Your task to perform on an android device: turn on the 24-hour format for clock Image 0: 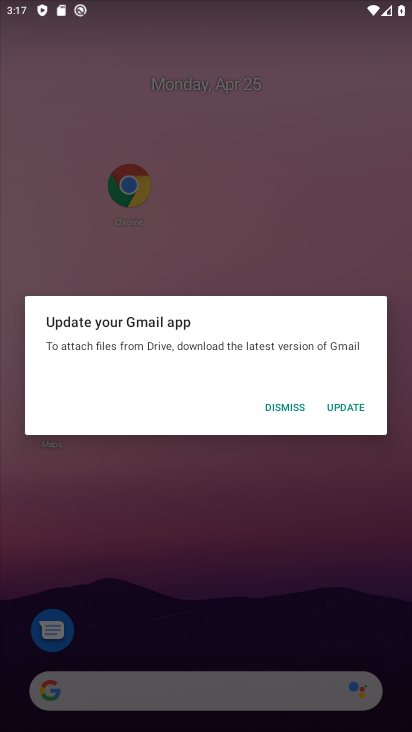
Step 0: press home button
Your task to perform on an android device: turn on the 24-hour format for clock Image 1: 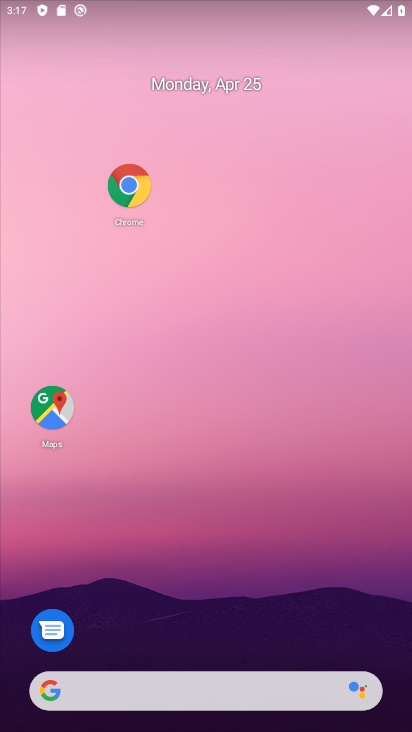
Step 1: drag from (140, 627) to (213, 108)
Your task to perform on an android device: turn on the 24-hour format for clock Image 2: 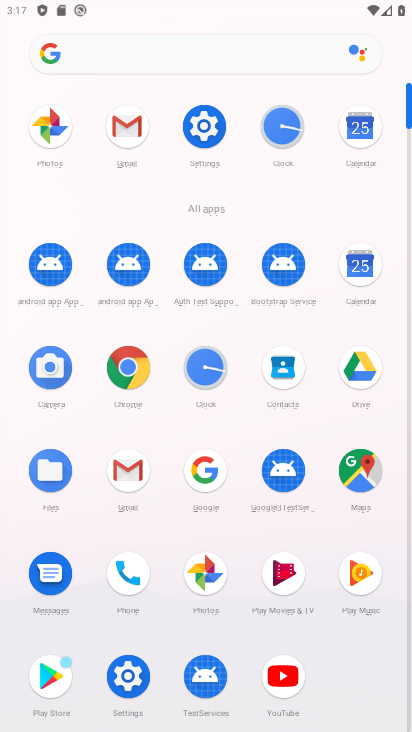
Step 2: click (202, 374)
Your task to perform on an android device: turn on the 24-hour format for clock Image 3: 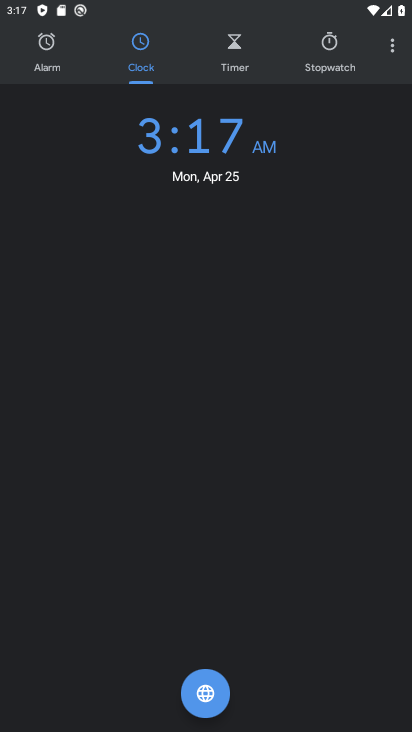
Step 3: click (394, 49)
Your task to perform on an android device: turn on the 24-hour format for clock Image 4: 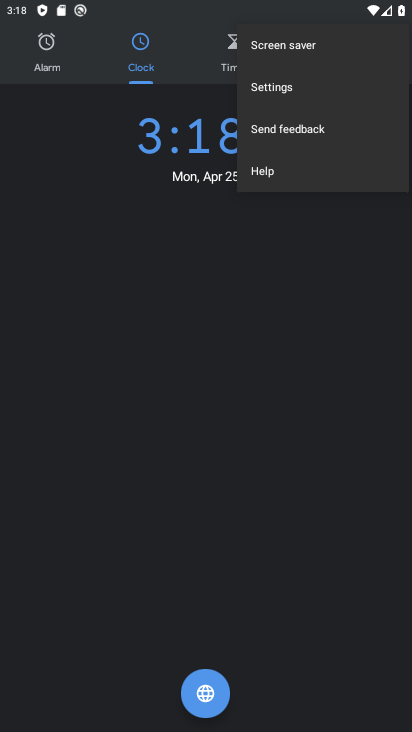
Step 4: click (308, 100)
Your task to perform on an android device: turn on the 24-hour format for clock Image 5: 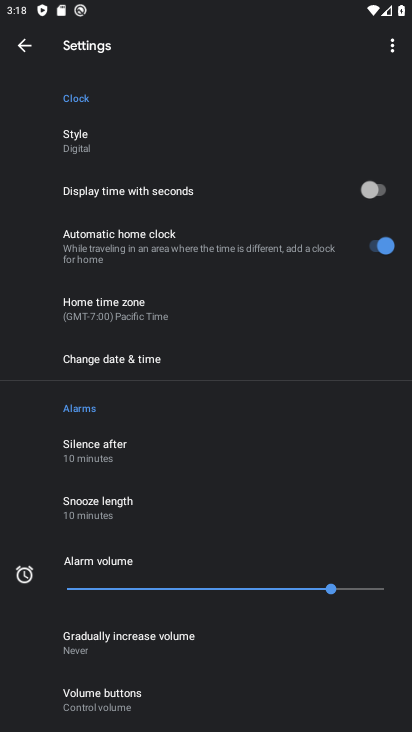
Step 5: drag from (150, 500) to (205, 130)
Your task to perform on an android device: turn on the 24-hour format for clock Image 6: 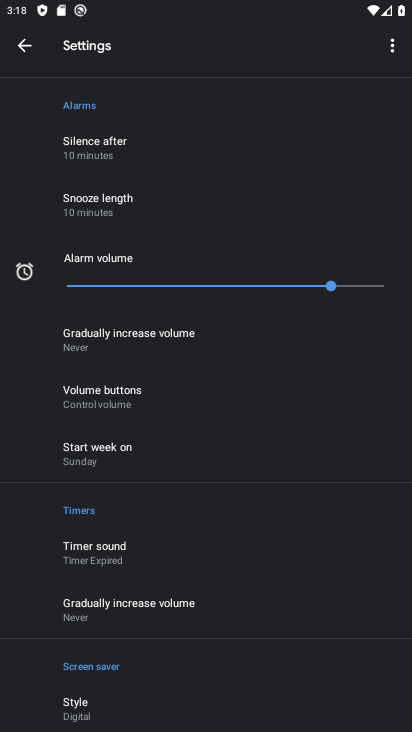
Step 6: drag from (104, 644) to (179, 306)
Your task to perform on an android device: turn on the 24-hour format for clock Image 7: 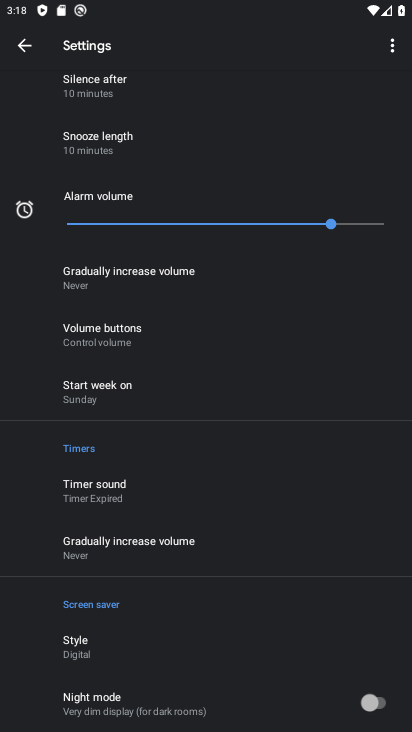
Step 7: drag from (145, 702) to (203, 386)
Your task to perform on an android device: turn on the 24-hour format for clock Image 8: 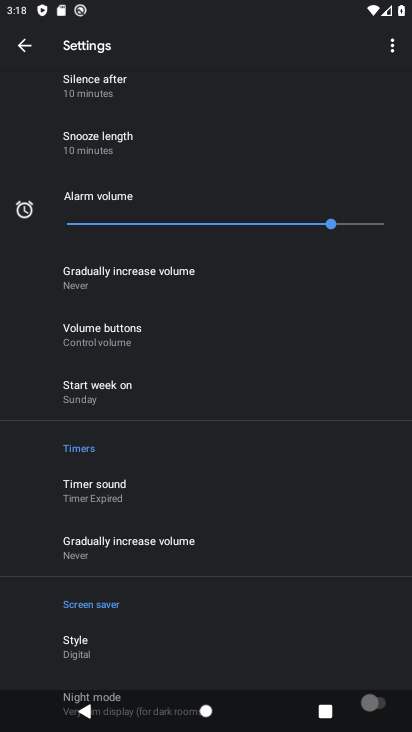
Step 8: drag from (240, 140) to (210, 643)
Your task to perform on an android device: turn on the 24-hour format for clock Image 9: 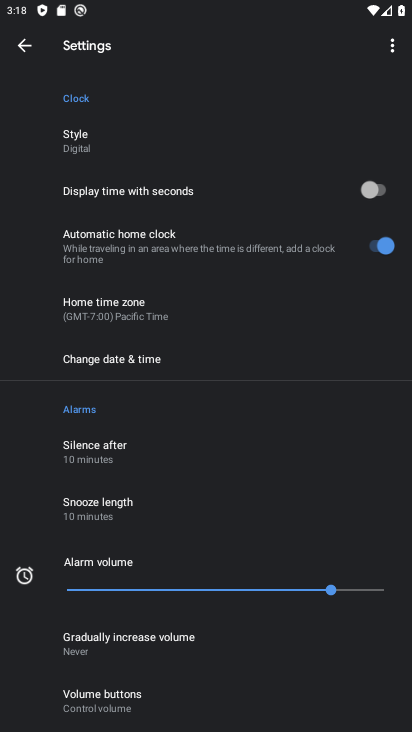
Step 9: click (128, 144)
Your task to perform on an android device: turn on the 24-hour format for clock Image 10: 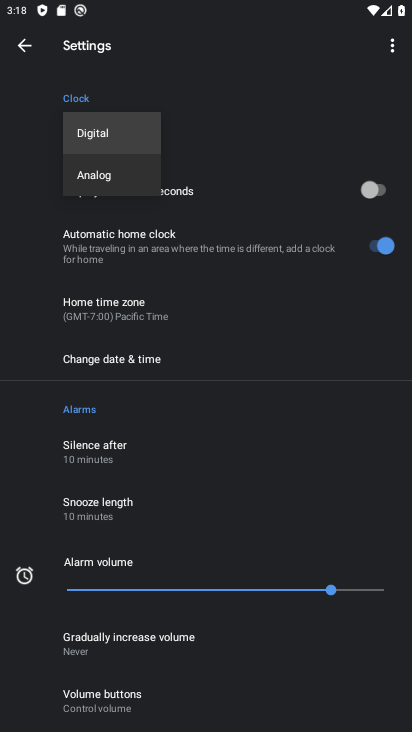
Step 10: click (123, 352)
Your task to perform on an android device: turn on the 24-hour format for clock Image 11: 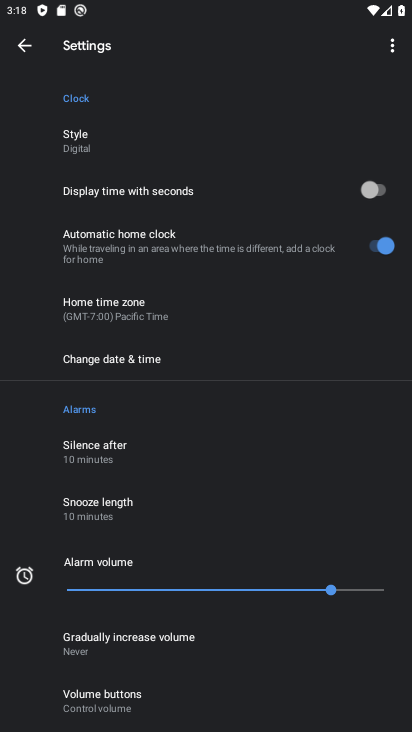
Step 11: click (124, 356)
Your task to perform on an android device: turn on the 24-hour format for clock Image 12: 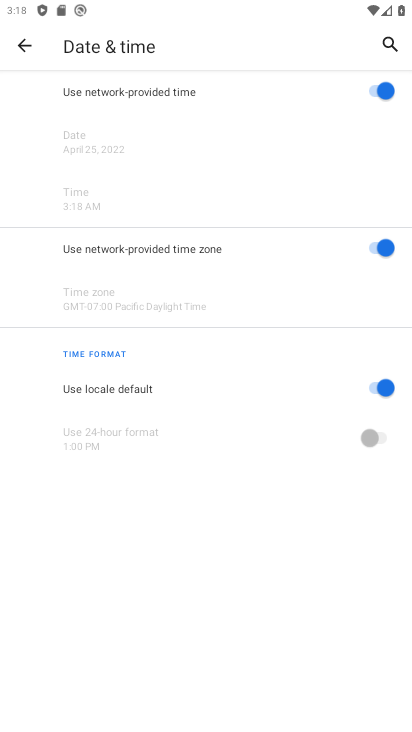
Step 12: click (165, 384)
Your task to perform on an android device: turn on the 24-hour format for clock Image 13: 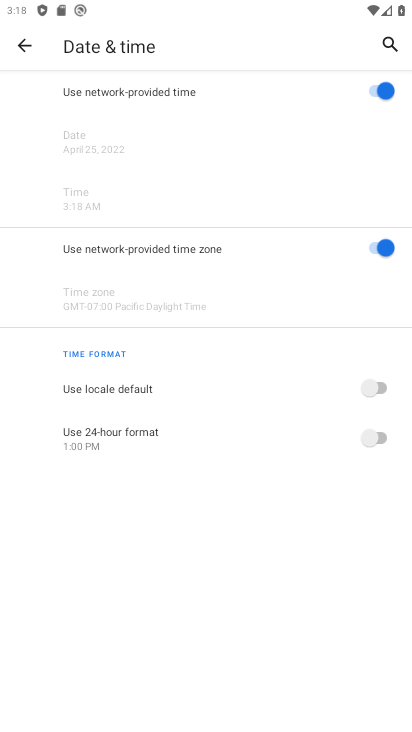
Step 13: click (376, 432)
Your task to perform on an android device: turn on the 24-hour format for clock Image 14: 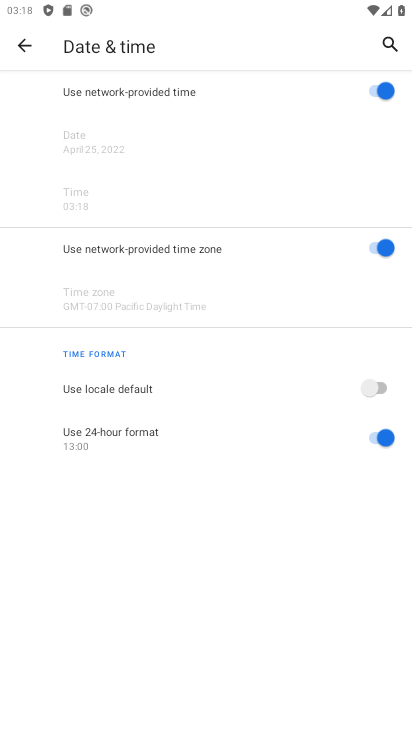
Step 14: task complete